Your task to perform on an android device: change alarm snooze length Image 0: 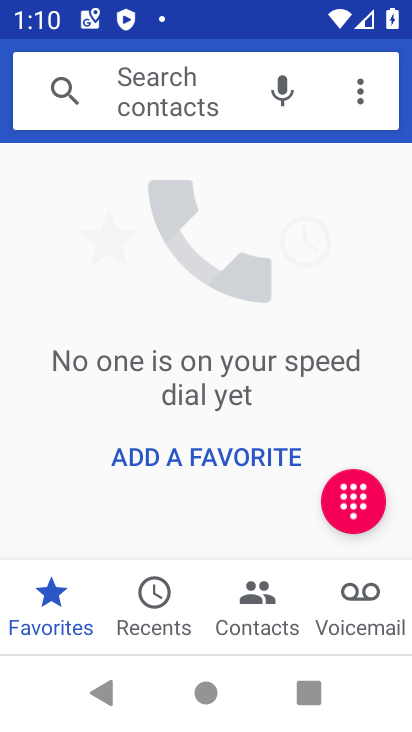
Step 0: press home button
Your task to perform on an android device: change alarm snooze length Image 1: 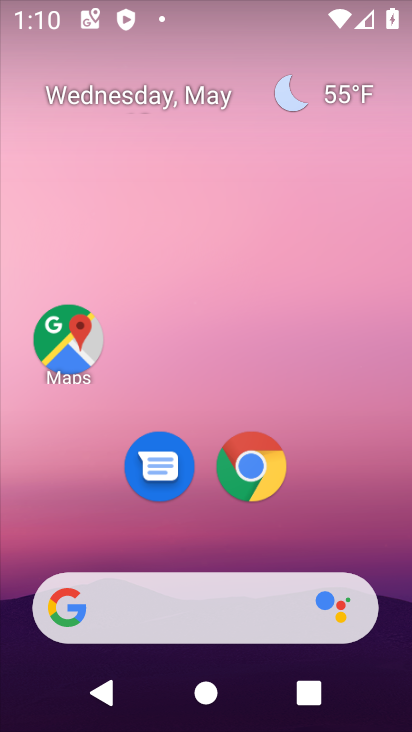
Step 1: drag from (193, 552) to (267, 59)
Your task to perform on an android device: change alarm snooze length Image 2: 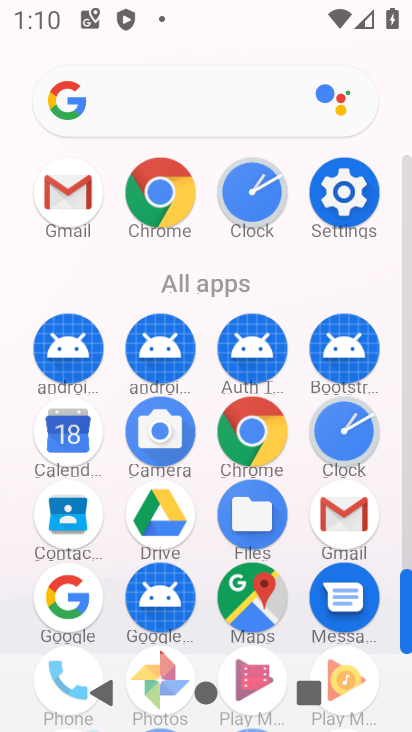
Step 2: click (326, 429)
Your task to perform on an android device: change alarm snooze length Image 3: 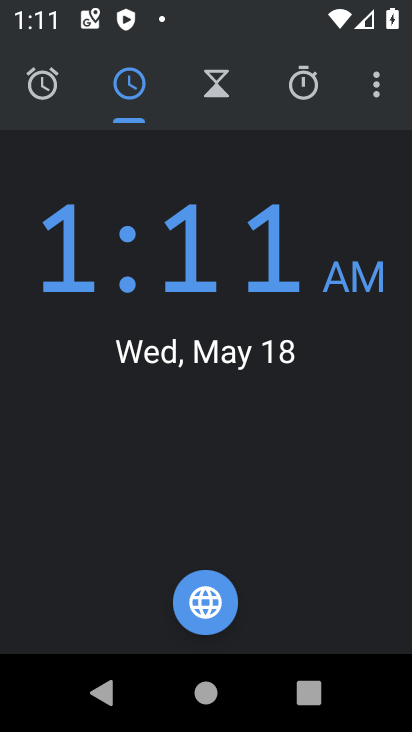
Step 3: click (374, 86)
Your task to perform on an android device: change alarm snooze length Image 4: 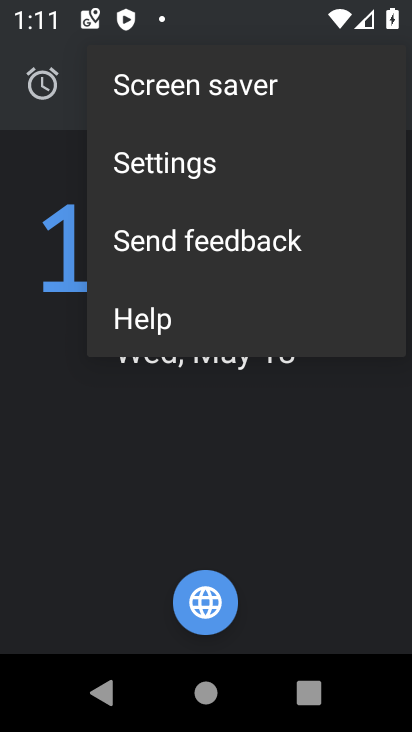
Step 4: click (211, 176)
Your task to perform on an android device: change alarm snooze length Image 5: 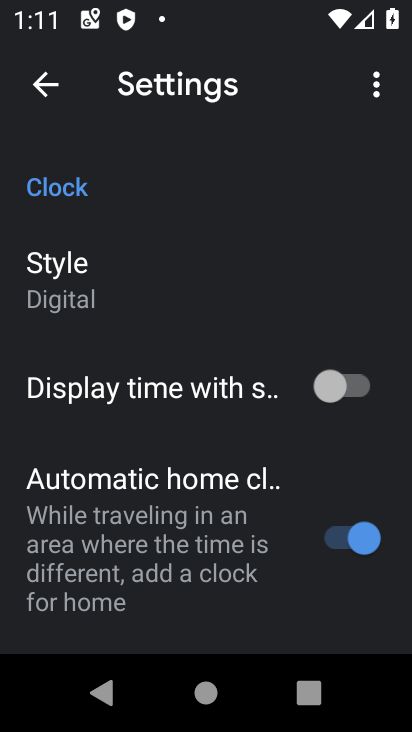
Step 5: drag from (139, 628) to (194, 240)
Your task to perform on an android device: change alarm snooze length Image 6: 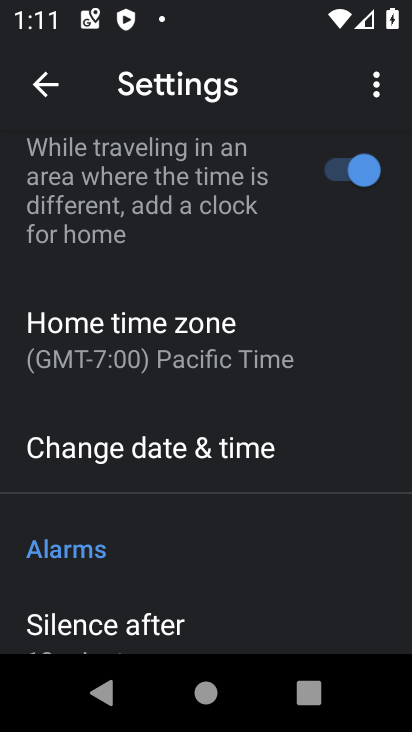
Step 6: drag from (165, 565) to (151, 167)
Your task to perform on an android device: change alarm snooze length Image 7: 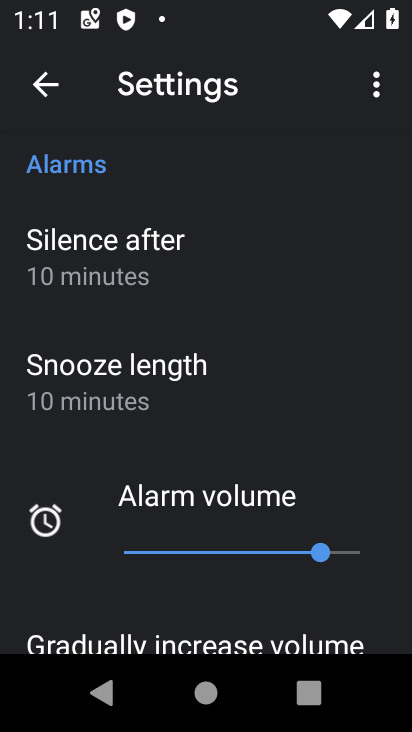
Step 7: drag from (171, 539) to (238, 148)
Your task to perform on an android device: change alarm snooze length Image 8: 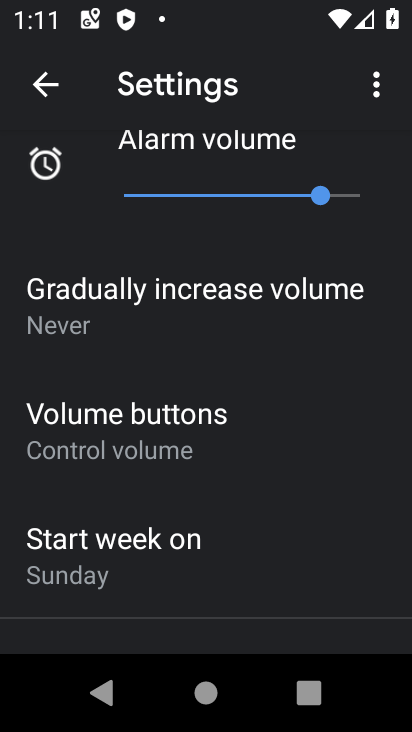
Step 8: drag from (210, 549) to (259, 301)
Your task to perform on an android device: change alarm snooze length Image 9: 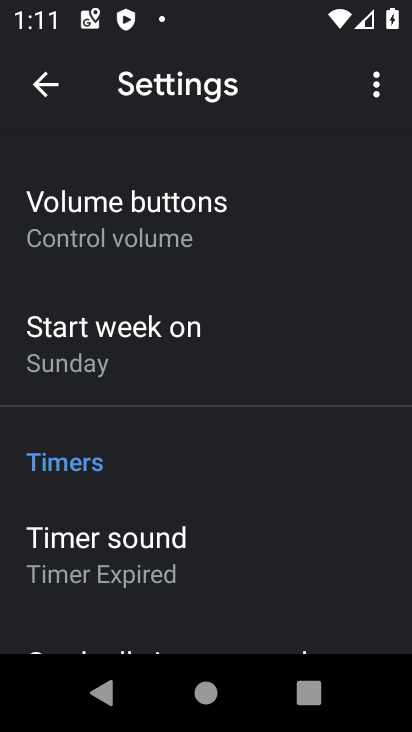
Step 9: drag from (186, 577) to (198, 262)
Your task to perform on an android device: change alarm snooze length Image 10: 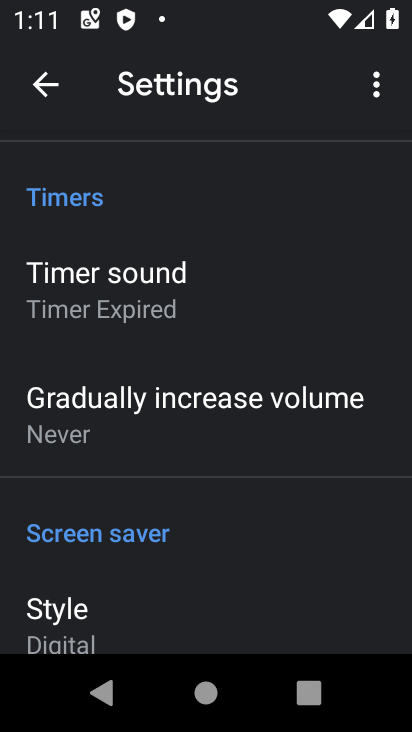
Step 10: drag from (240, 264) to (320, 676)
Your task to perform on an android device: change alarm snooze length Image 11: 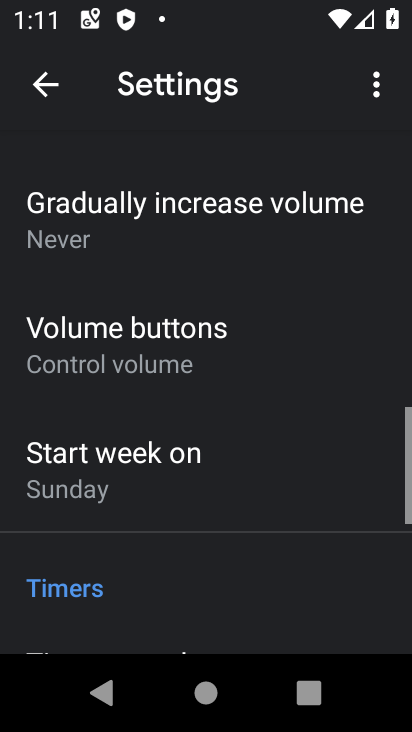
Step 11: drag from (201, 275) to (288, 710)
Your task to perform on an android device: change alarm snooze length Image 12: 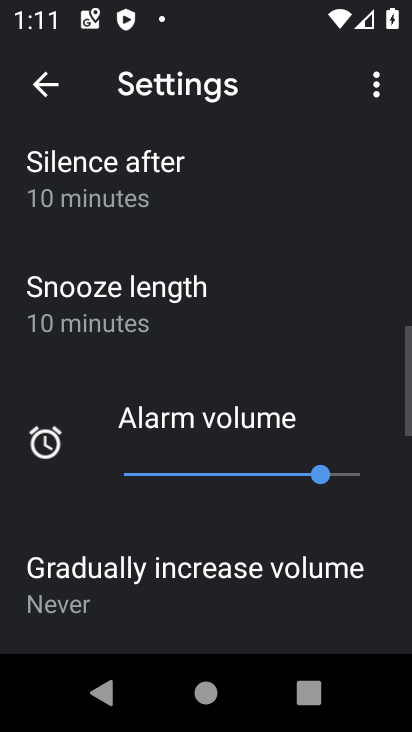
Step 12: drag from (274, 393) to (325, 619)
Your task to perform on an android device: change alarm snooze length Image 13: 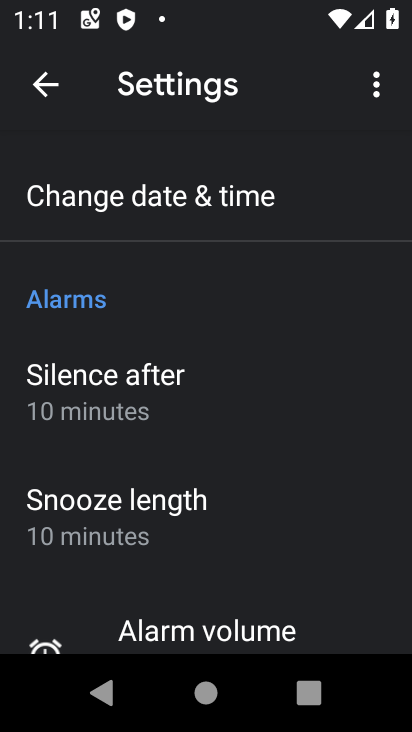
Step 13: click (223, 545)
Your task to perform on an android device: change alarm snooze length Image 14: 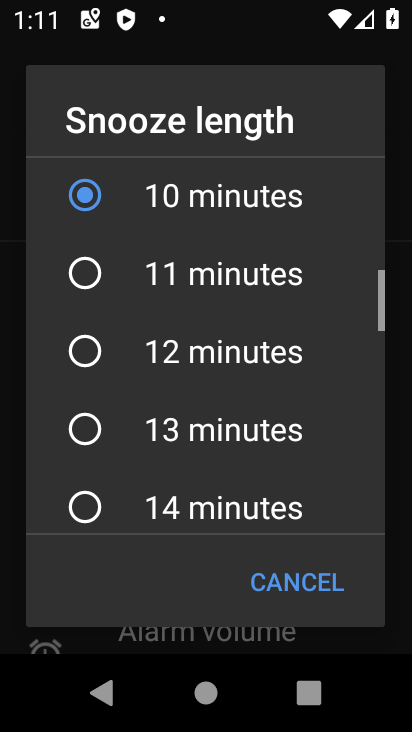
Step 14: click (211, 493)
Your task to perform on an android device: change alarm snooze length Image 15: 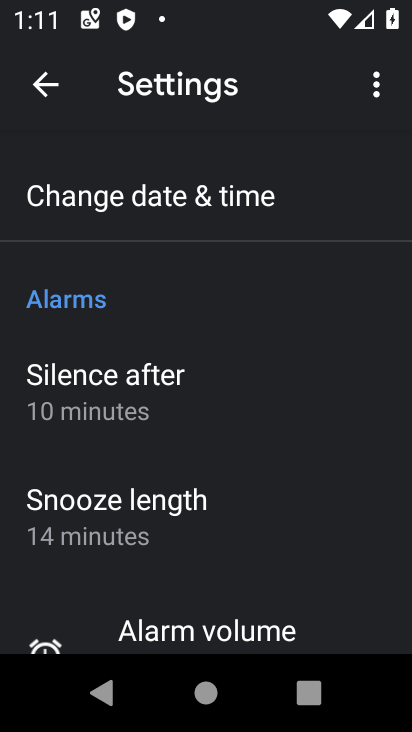
Step 15: task complete